Your task to perform on an android device: Open notification settings Image 0: 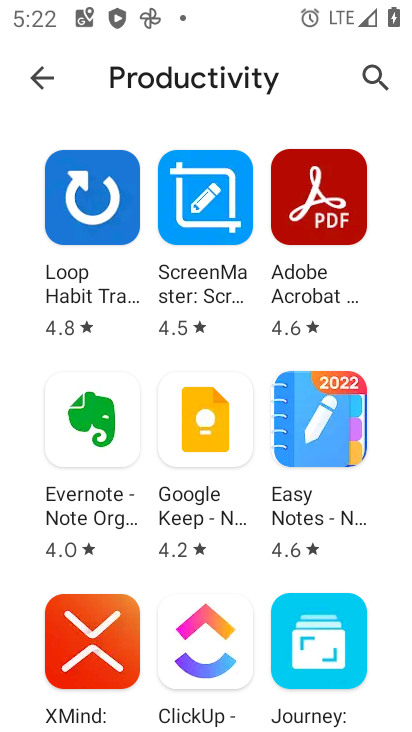
Step 0: press home button
Your task to perform on an android device: Open notification settings Image 1: 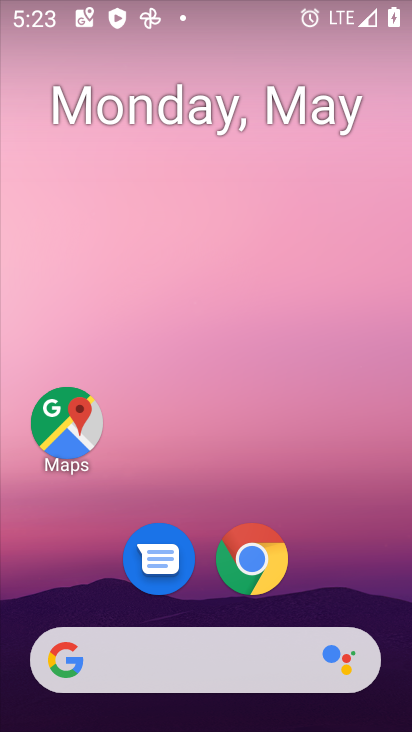
Step 1: drag from (310, 622) to (299, 30)
Your task to perform on an android device: Open notification settings Image 2: 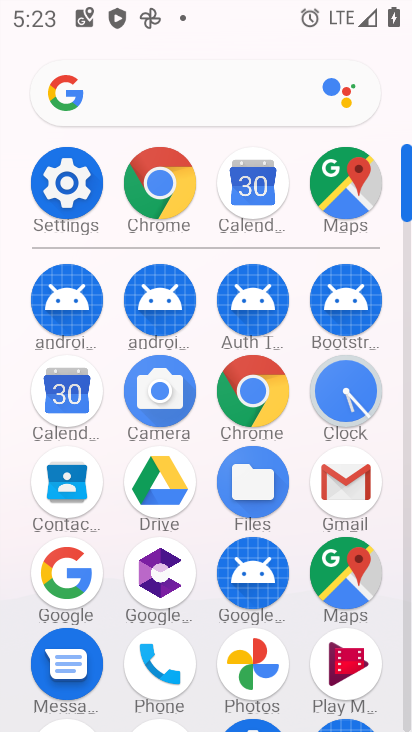
Step 2: click (84, 198)
Your task to perform on an android device: Open notification settings Image 3: 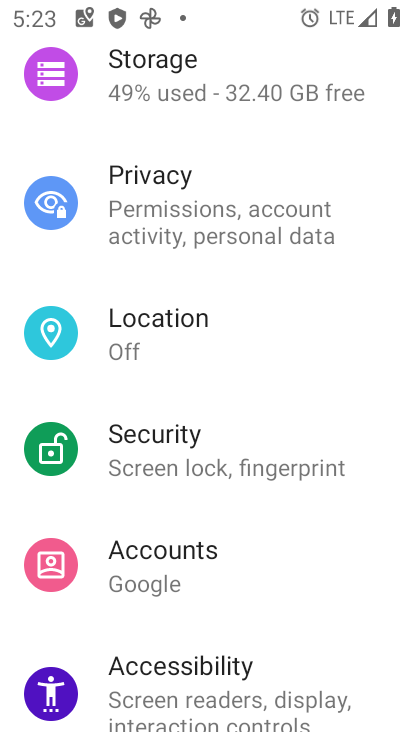
Step 3: drag from (236, 165) to (401, 730)
Your task to perform on an android device: Open notification settings Image 4: 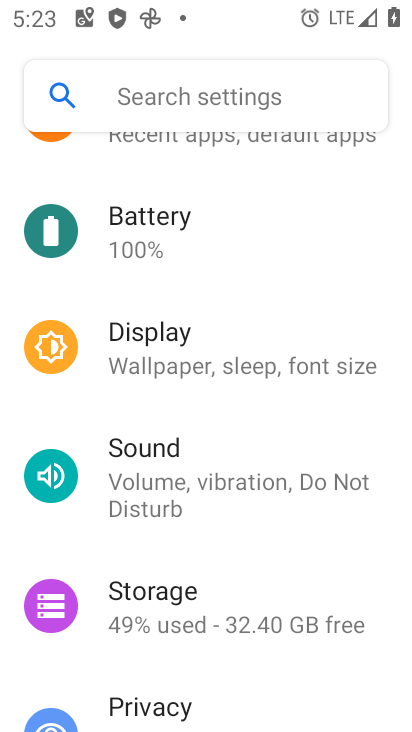
Step 4: drag from (225, 240) to (327, 729)
Your task to perform on an android device: Open notification settings Image 5: 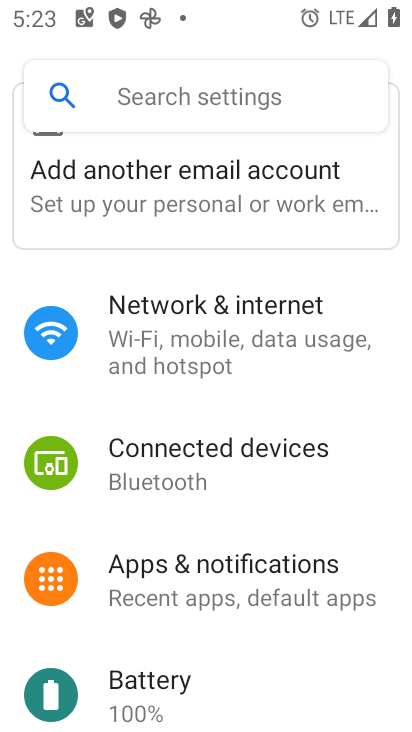
Step 5: click (244, 590)
Your task to perform on an android device: Open notification settings Image 6: 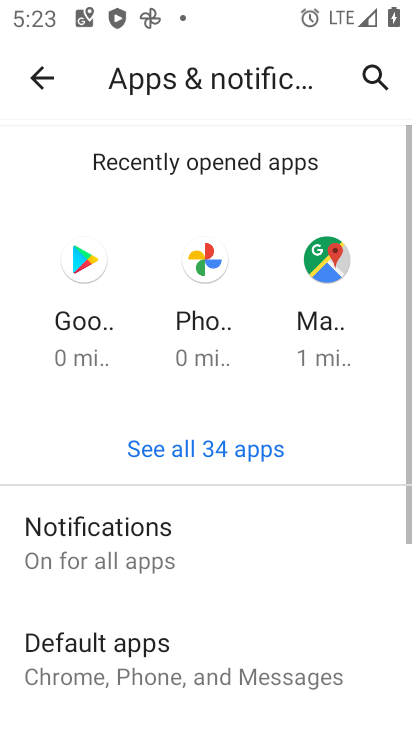
Step 6: task complete